Your task to perform on an android device: Do I have any events this weekend? Image 0: 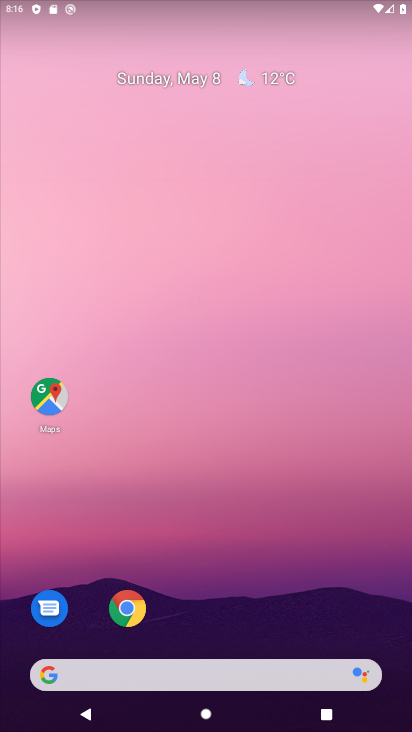
Step 0: drag from (263, 615) to (249, 28)
Your task to perform on an android device: Do I have any events this weekend? Image 1: 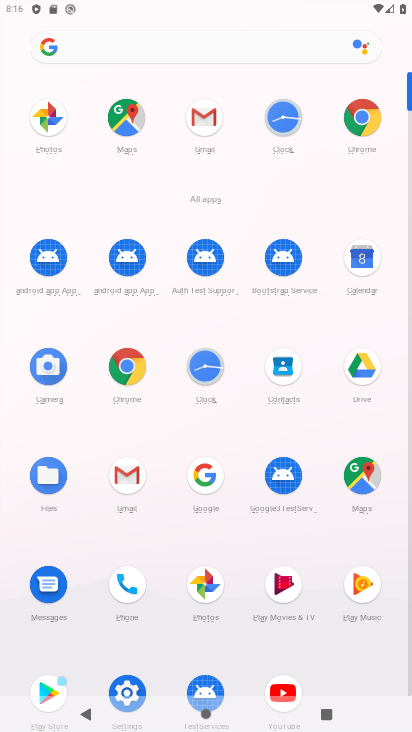
Step 1: drag from (16, 627) to (13, 293)
Your task to perform on an android device: Do I have any events this weekend? Image 2: 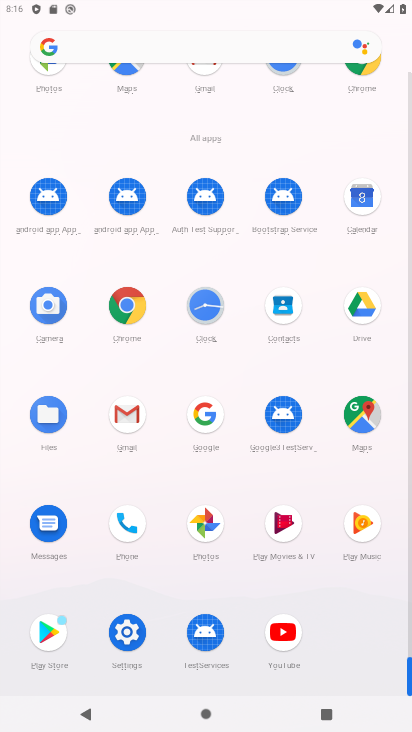
Step 2: click (364, 195)
Your task to perform on an android device: Do I have any events this weekend? Image 3: 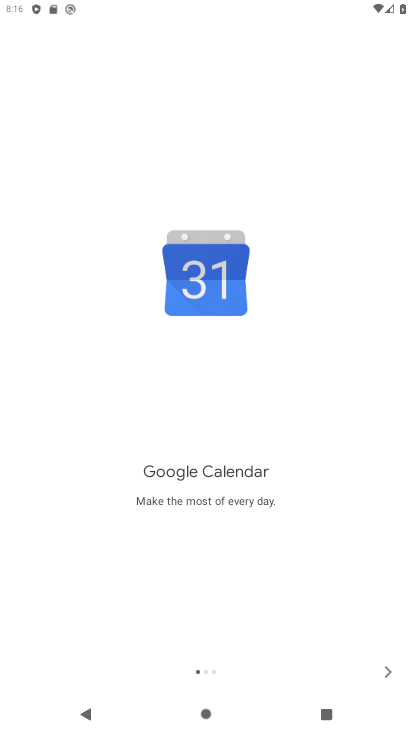
Step 3: click (381, 667)
Your task to perform on an android device: Do I have any events this weekend? Image 4: 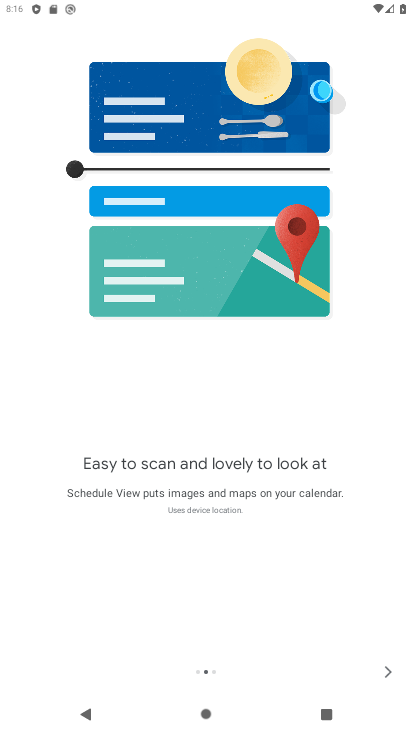
Step 4: click (381, 667)
Your task to perform on an android device: Do I have any events this weekend? Image 5: 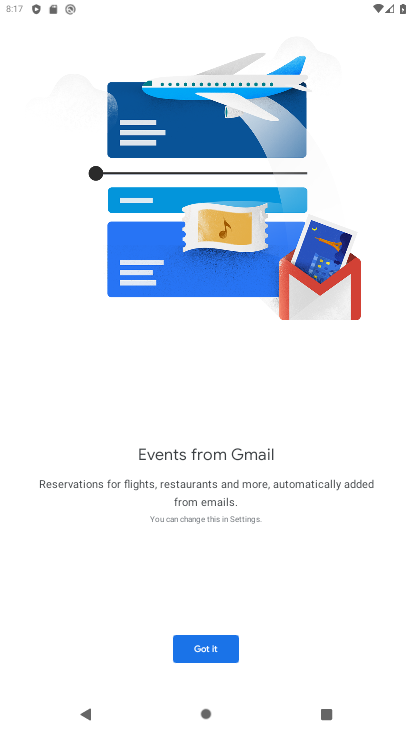
Step 5: click (195, 642)
Your task to perform on an android device: Do I have any events this weekend? Image 6: 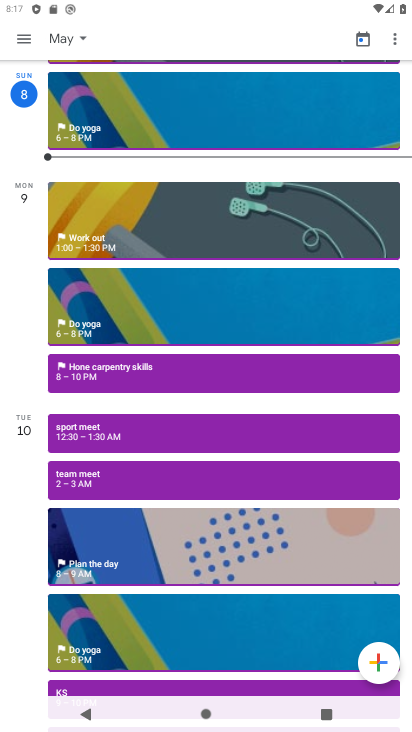
Step 6: click (60, 36)
Your task to perform on an android device: Do I have any events this weekend? Image 7: 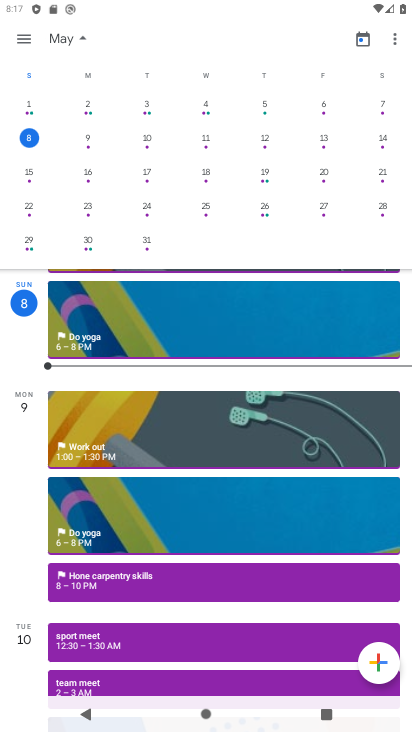
Step 7: click (381, 138)
Your task to perform on an android device: Do I have any events this weekend? Image 8: 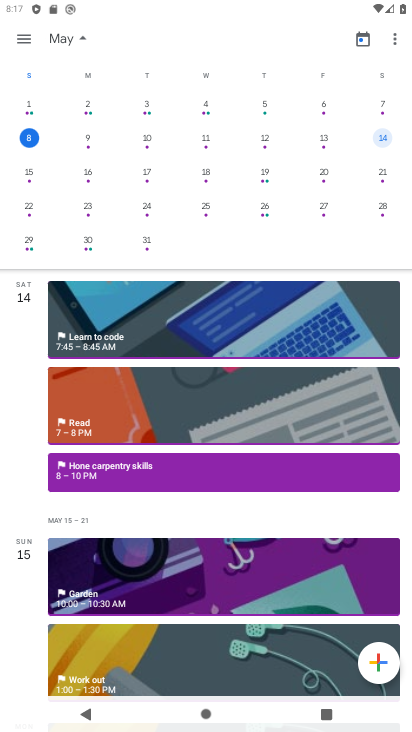
Step 8: click (24, 42)
Your task to perform on an android device: Do I have any events this weekend? Image 9: 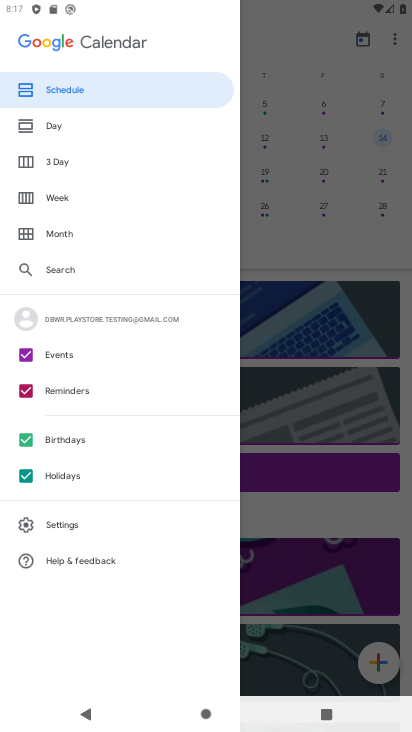
Step 9: click (61, 127)
Your task to perform on an android device: Do I have any events this weekend? Image 10: 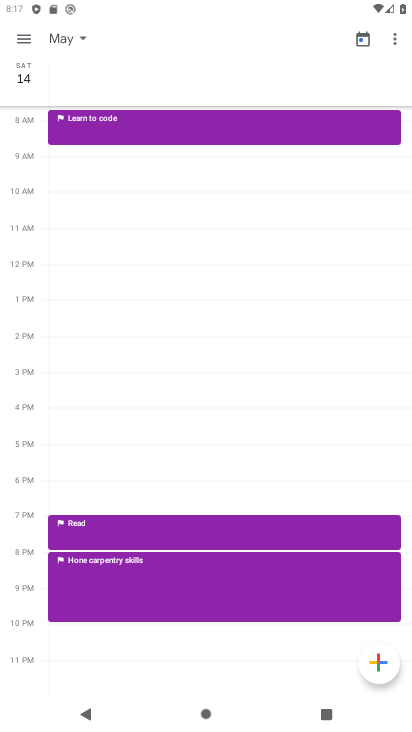
Step 10: task complete